Your task to perform on an android device: all mails in gmail Image 0: 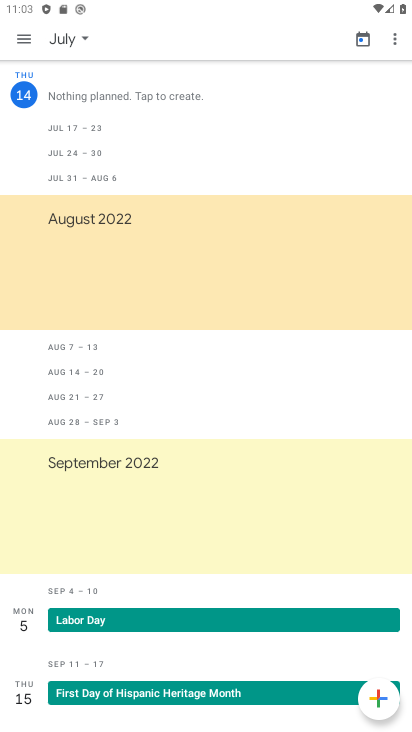
Step 0: press home button
Your task to perform on an android device: all mails in gmail Image 1: 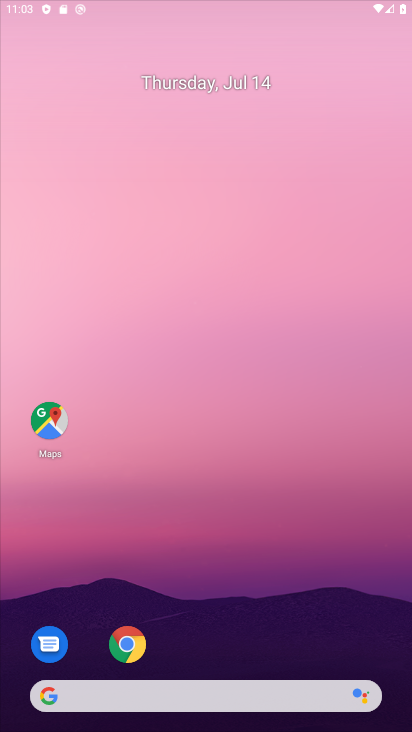
Step 1: drag from (393, 660) to (169, 43)
Your task to perform on an android device: all mails in gmail Image 2: 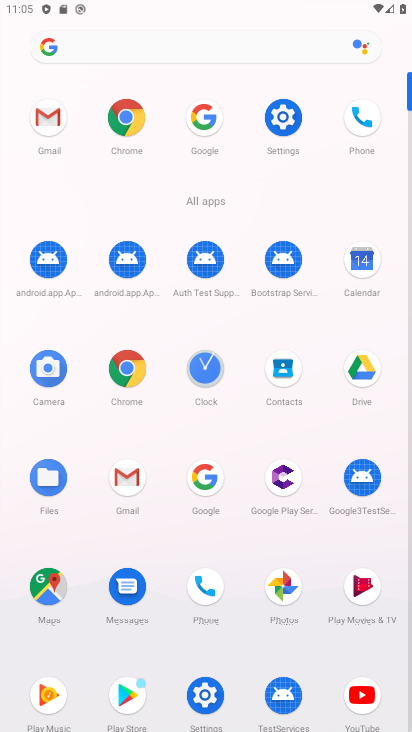
Step 2: click (38, 109)
Your task to perform on an android device: all mails in gmail Image 3: 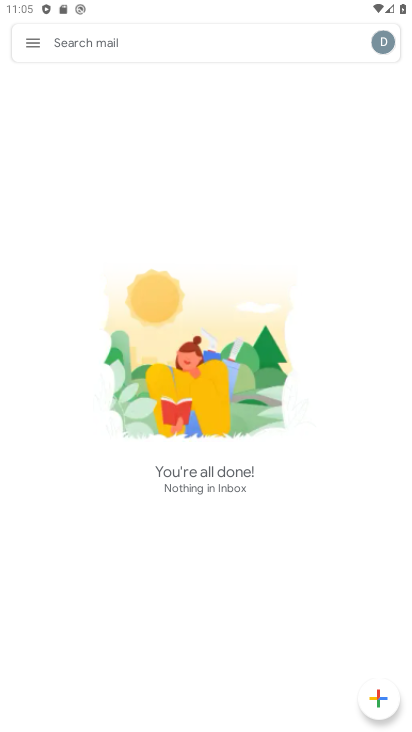
Step 3: click (26, 24)
Your task to perform on an android device: all mails in gmail Image 4: 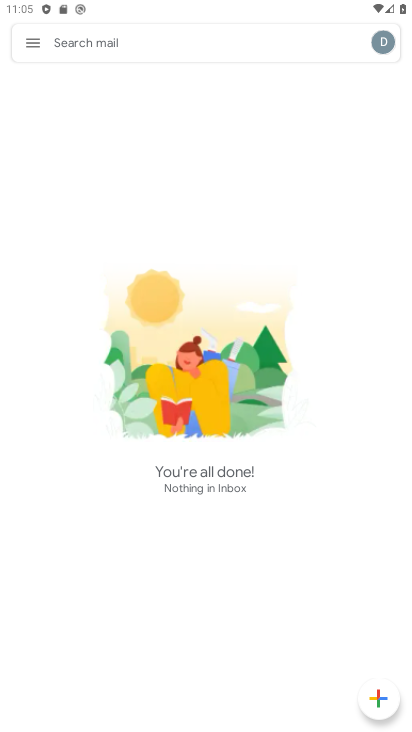
Step 4: click (32, 37)
Your task to perform on an android device: all mails in gmail Image 5: 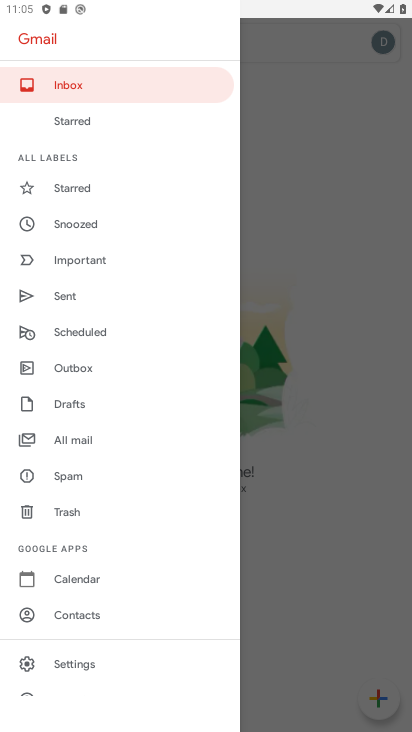
Step 5: click (75, 440)
Your task to perform on an android device: all mails in gmail Image 6: 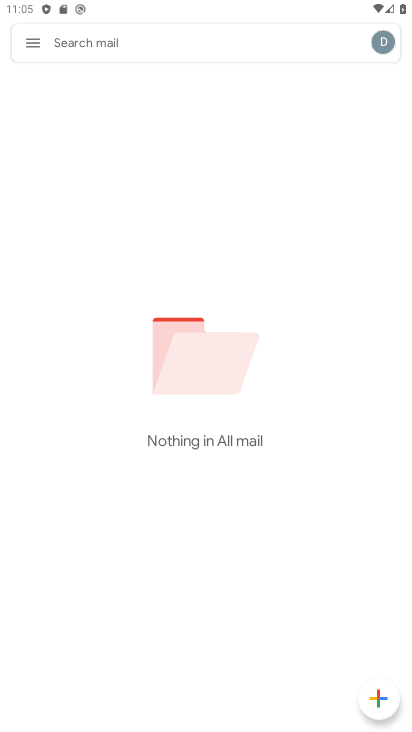
Step 6: task complete